Your task to perform on an android device: Open the stopwatch Image 0: 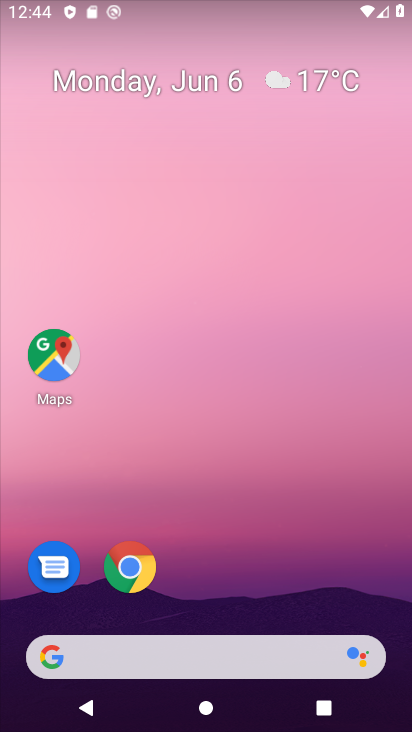
Step 0: drag from (232, 709) to (351, 10)
Your task to perform on an android device: Open the stopwatch Image 1: 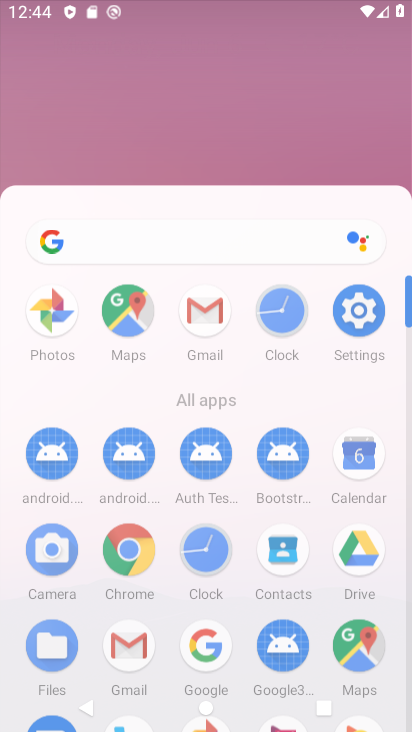
Step 1: drag from (246, 667) to (279, 161)
Your task to perform on an android device: Open the stopwatch Image 2: 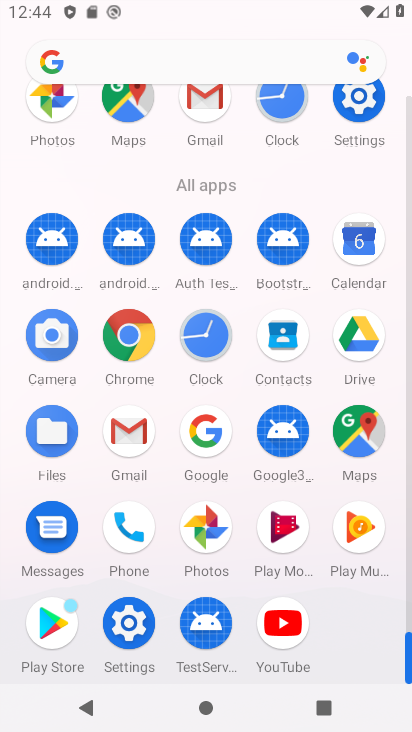
Step 2: click (297, 107)
Your task to perform on an android device: Open the stopwatch Image 3: 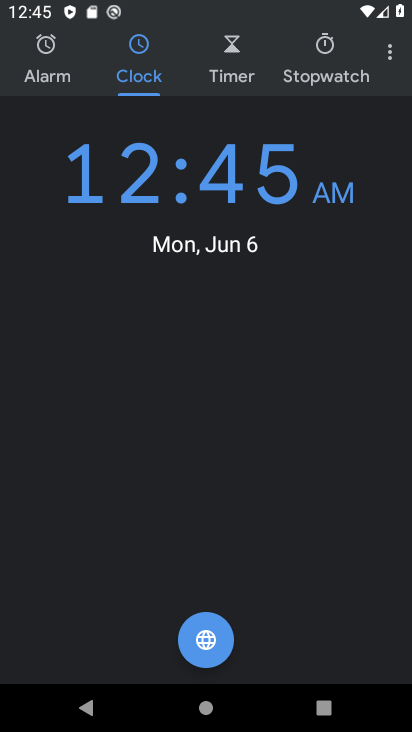
Step 3: drag from (253, 722) to (250, 117)
Your task to perform on an android device: Open the stopwatch Image 4: 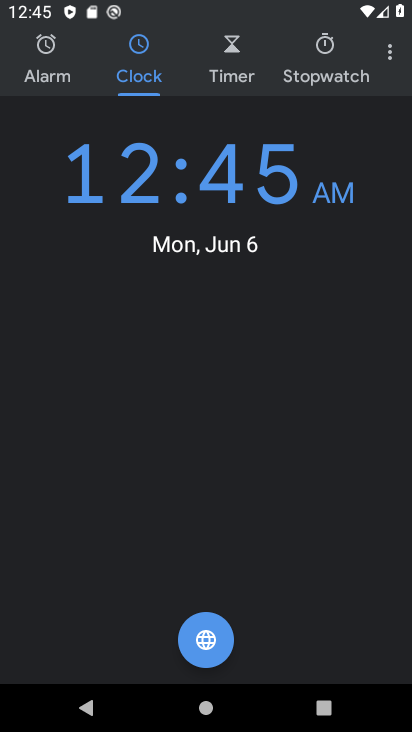
Step 4: click (341, 65)
Your task to perform on an android device: Open the stopwatch Image 5: 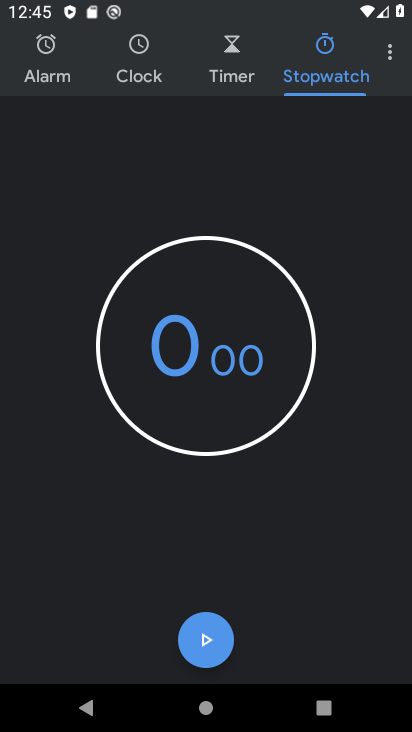
Step 5: task complete